Your task to perform on an android device: toggle airplane mode Image 0: 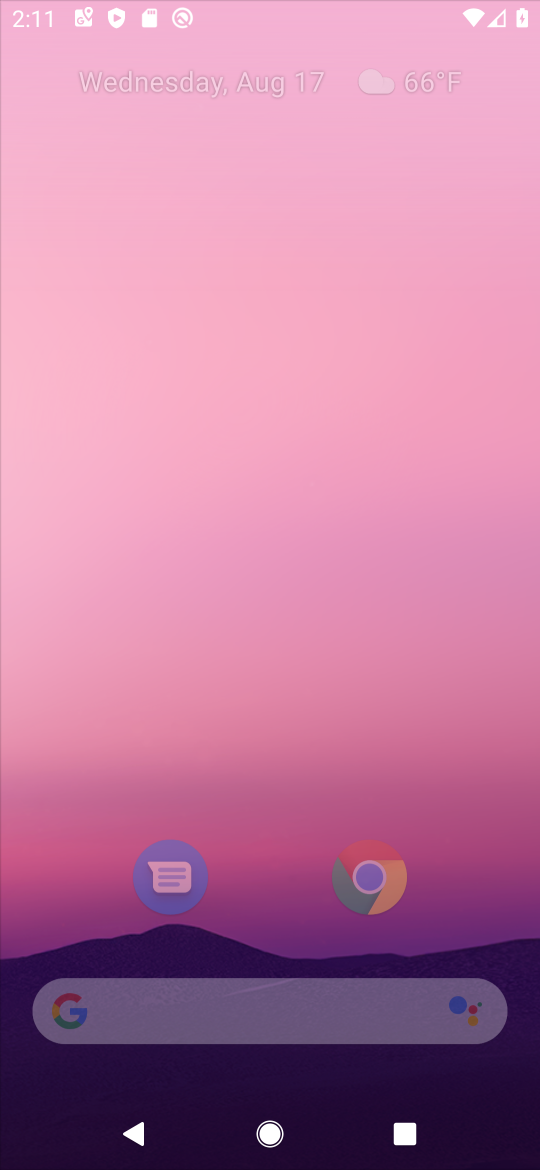
Step 0: press home button
Your task to perform on an android device: toggle airplane mode Image 1: 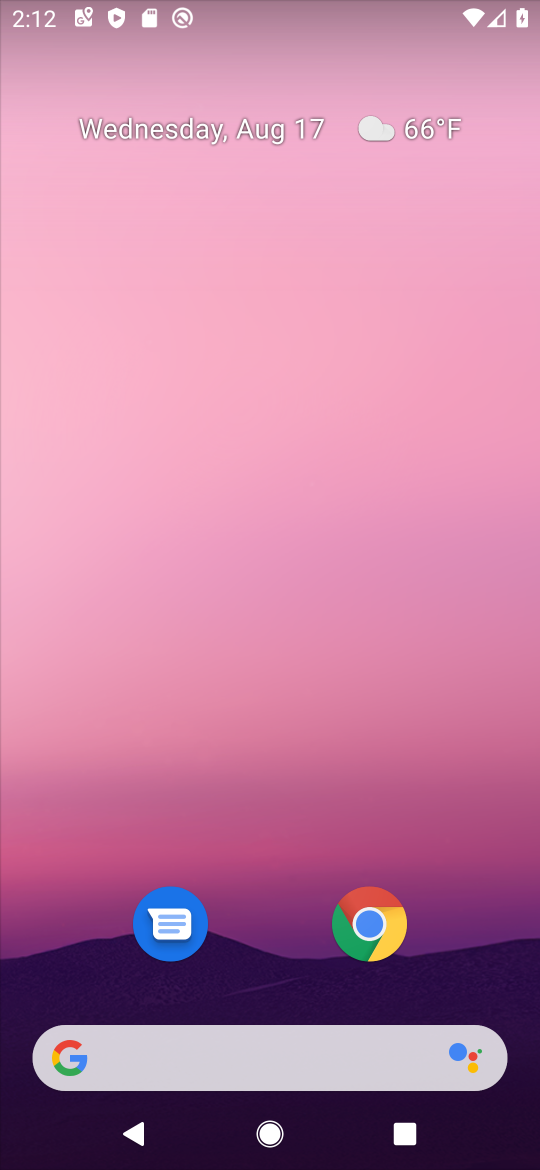
Step 1: drag from (255, 1054) to (236, 115)
Your task to perform on an android device: toggle airplane mode Image 2: 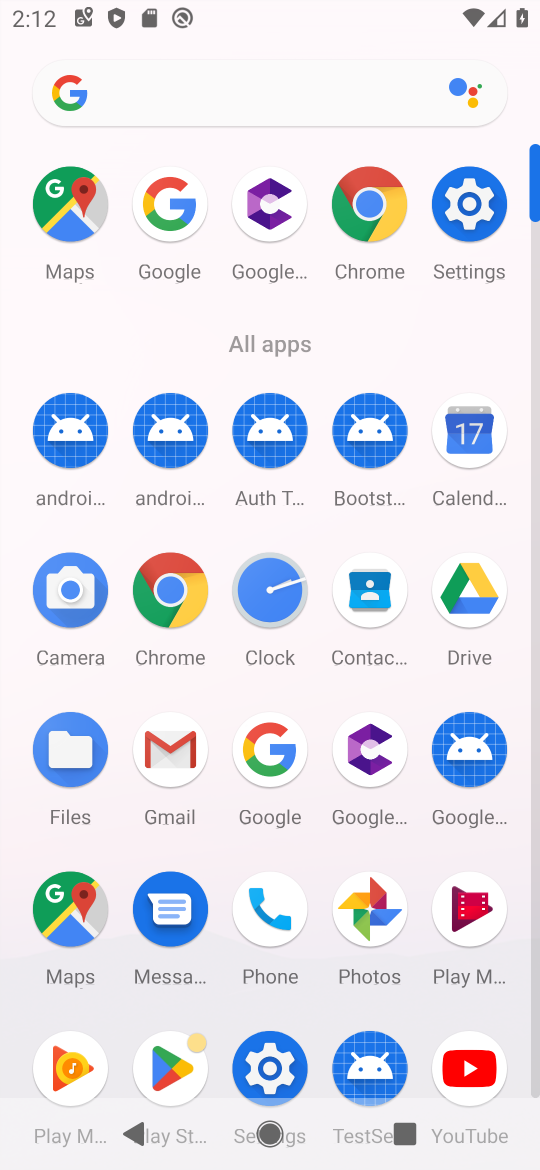
Step 2: click (468, 206)
Your task to perform on an android device: toggle airplane mode Image 3: 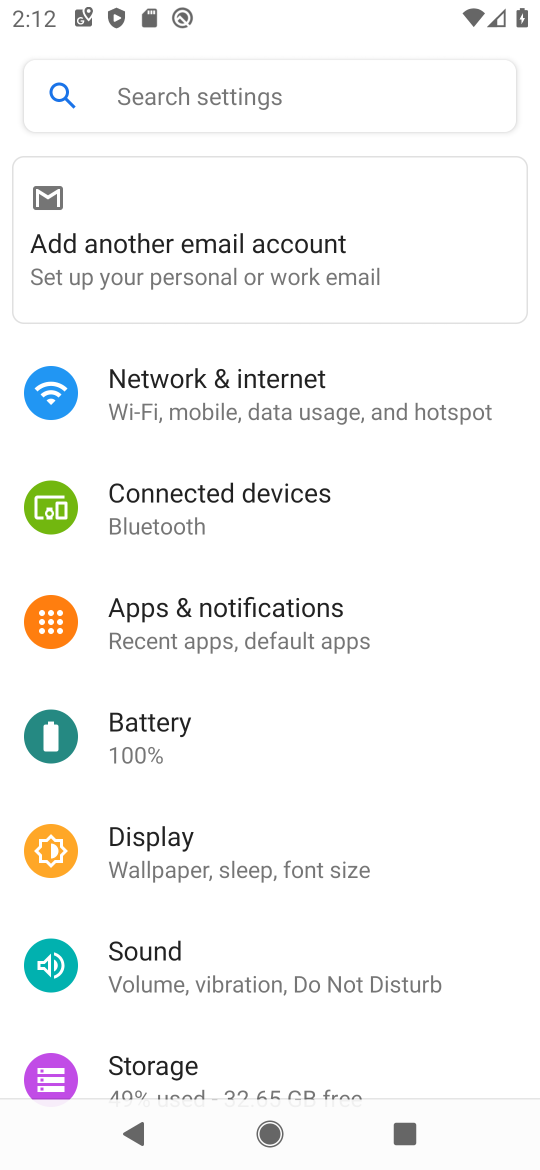
Step 3: click (244, 416)
Your task to perform on an android device: toggle airplane mode Image 4: 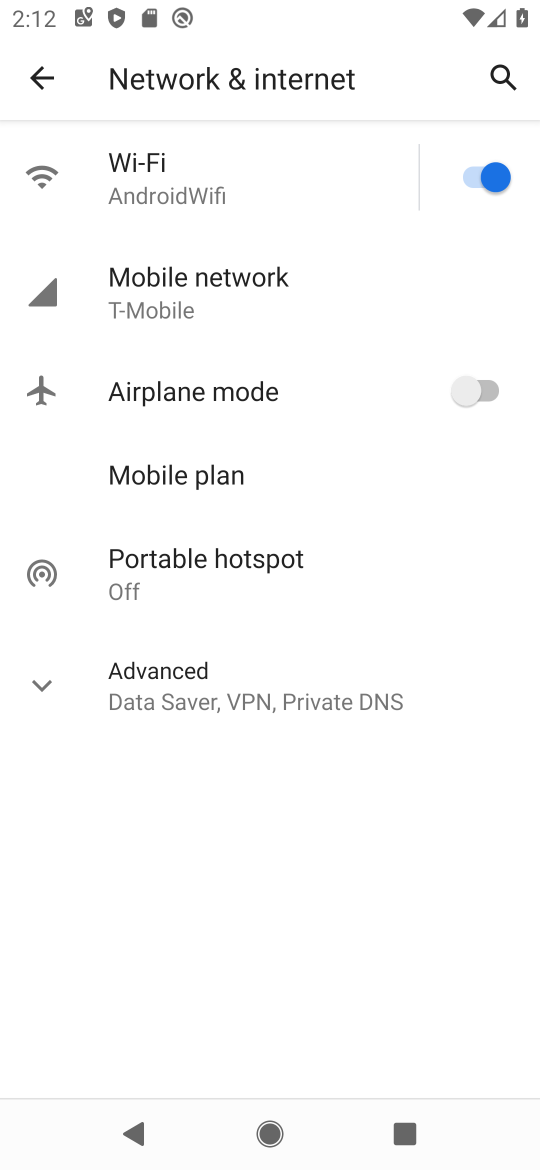
Step 4: click (476, 376)
Your task to perform on an android device: toggle airplane mode Image 5: 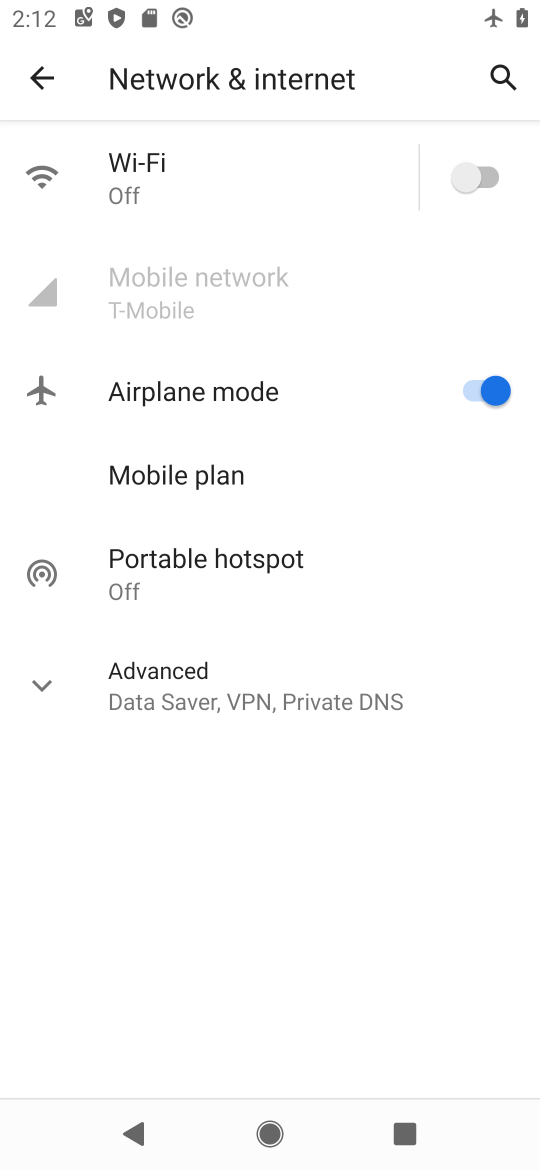
Step 5: task complete